Your task to perform on an android device: change the clock display to digital Image 0: 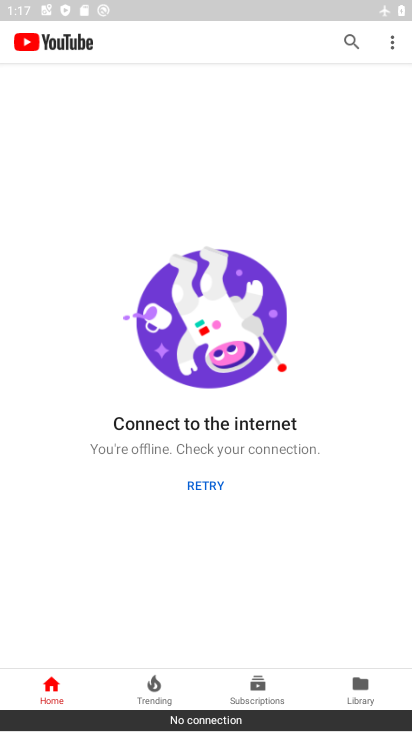
Step 0: press home button
Your task to perform on an android device: change the clock display to digital Image 1: 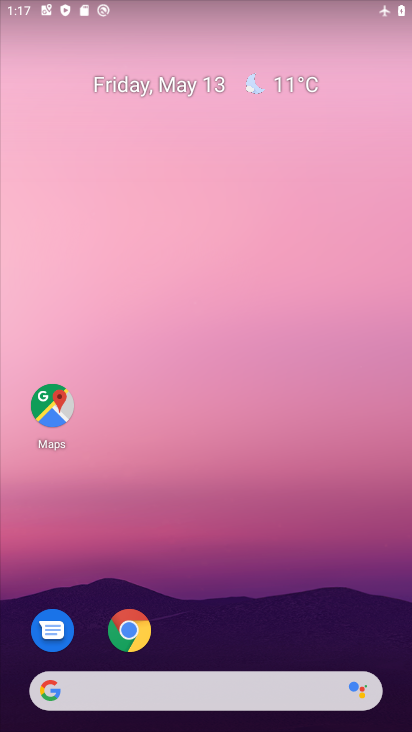
Step 1: drag from (303, 618) to (301, 7)
Your task to perform on an android device: change the clock display to digital Image 2: 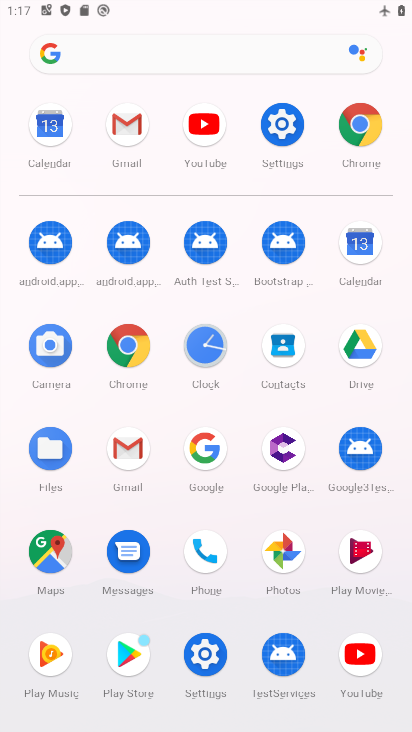
Step 2: click (206, 347)
Your task to perform on an android device: change the clock display to digital Image 3: 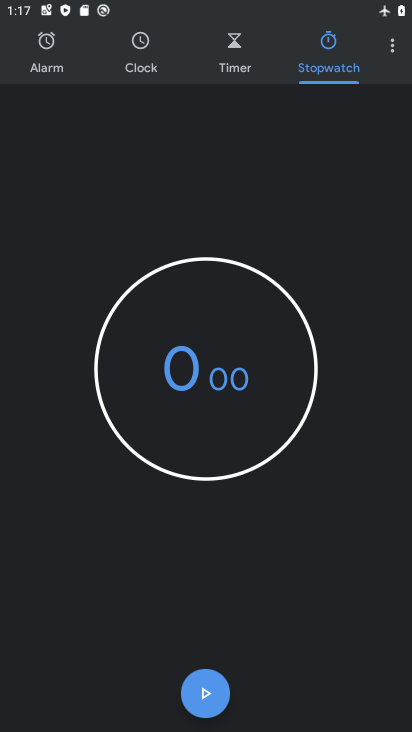
Step 3: click (394, 53)
Your task to perform on an android device: change the clock display to digital Image 4: 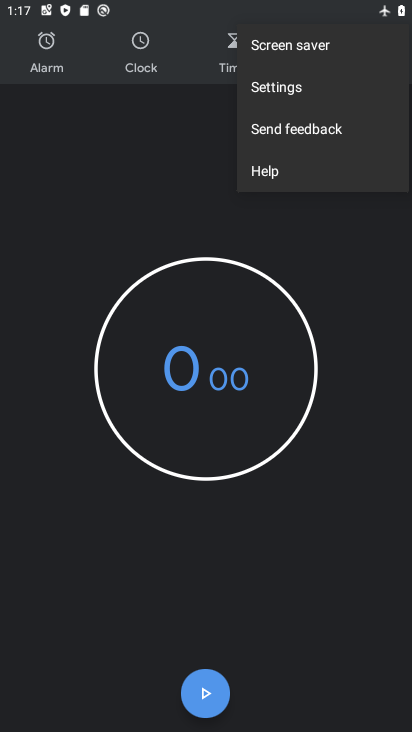
Step 4: click (271, 91)
Your task to perform on an android device: change the clock display to digital Image 5: 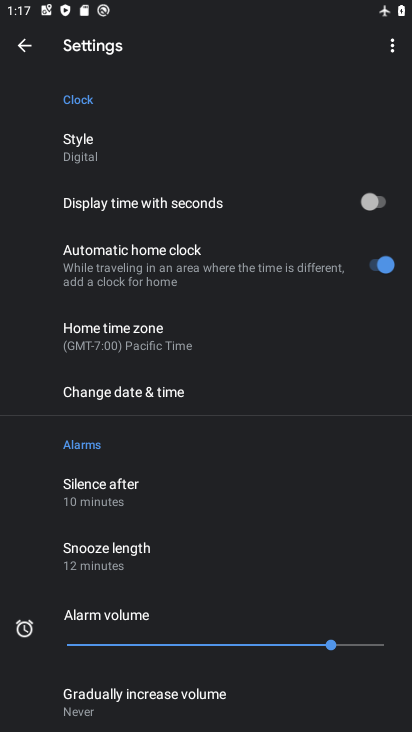
Step 5: task complete